Your task to perform on an android device: Go to settings Image 0: 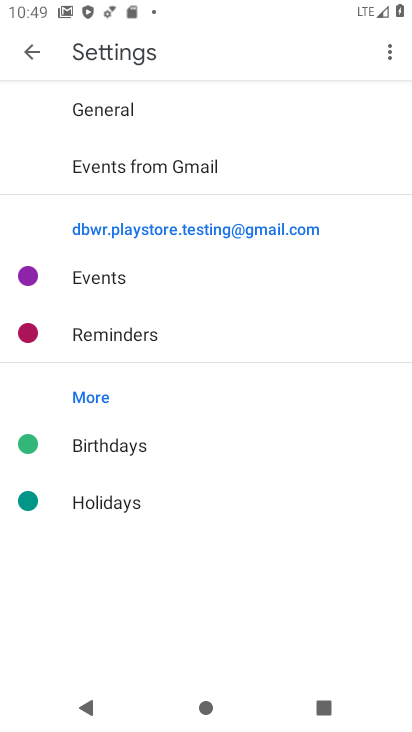
Step 0: press back button
Your task to perform on an android device: Go to settings Image 1: 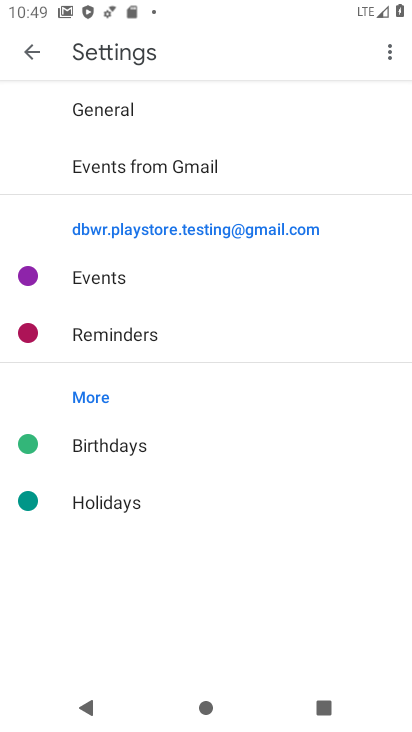
Step 1: press back button
Your task to perform on an android device: Go to settings Image 2: 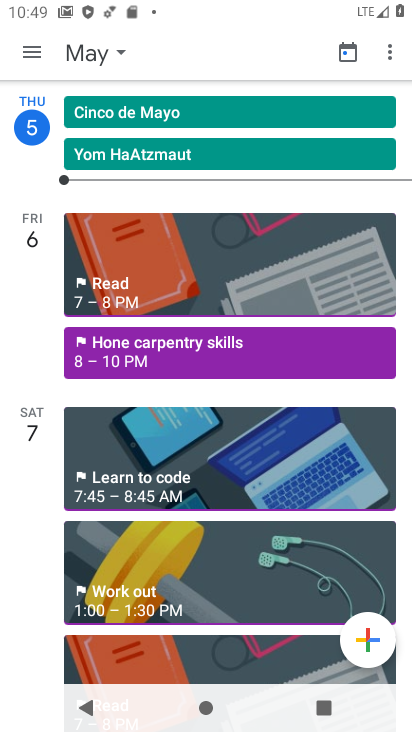
Step 2: press back button
Your task to perform on an android device: Go to settings Image 3: 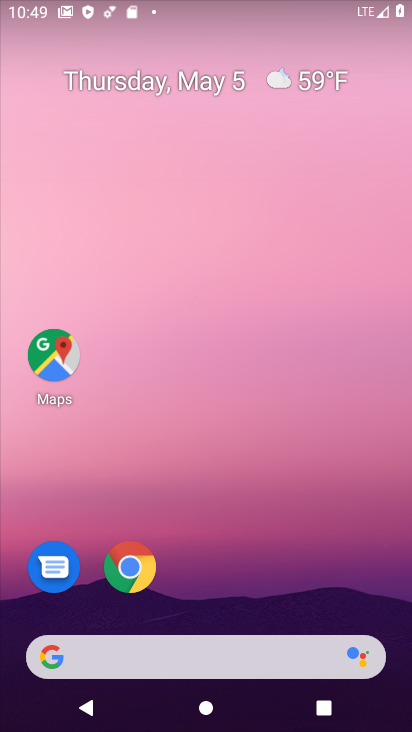
Step 3: drag from (209, 577) to (334, 42)
Your task to perform on an android device: Go to settings Image 4: 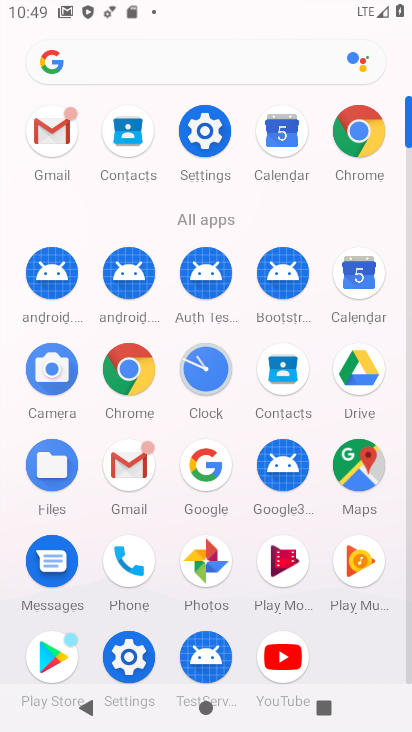
Step 4: click (201, 131)
Your task to perform on an android device: Go to settings Image 5: 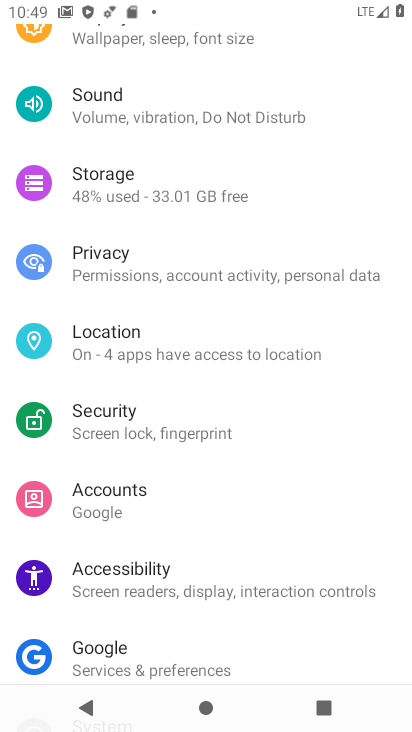
Step 5: task complete